Your task to perform on an android device: Go to Yahoo.com Image 0: 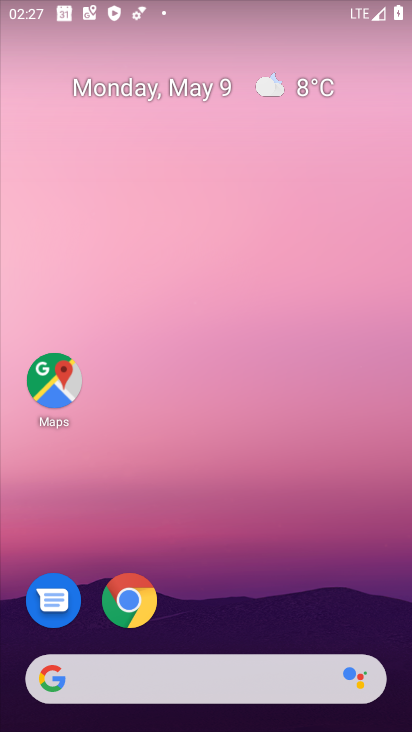
Step 0: click (122, 595)
Your task to perform on an android device: Go to Yahoo.com Image 1: 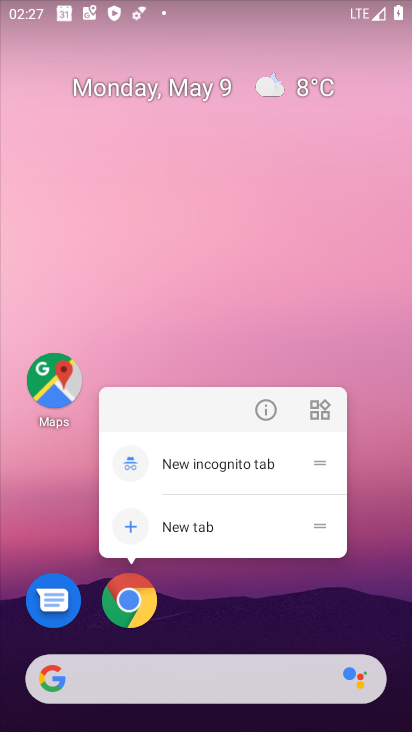
Step 1: click (128, 593)
Your task to perform on an android device: Go to Yahoo.com Image 2: 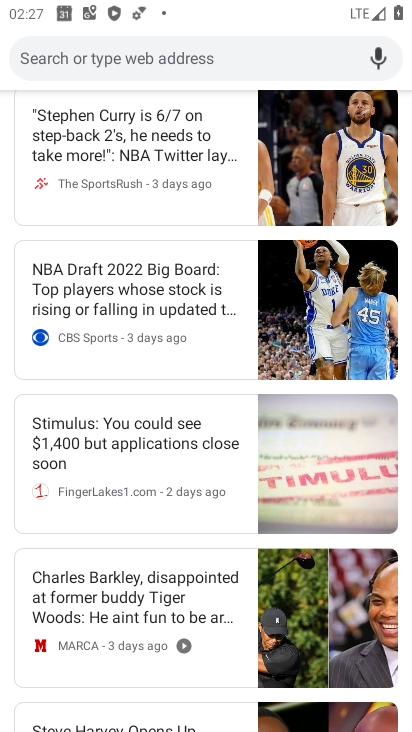
Step 2: drag from (178, 239) to (182, 609)
Your task to perform on an android device: Go to Yahoo.com Image 3: 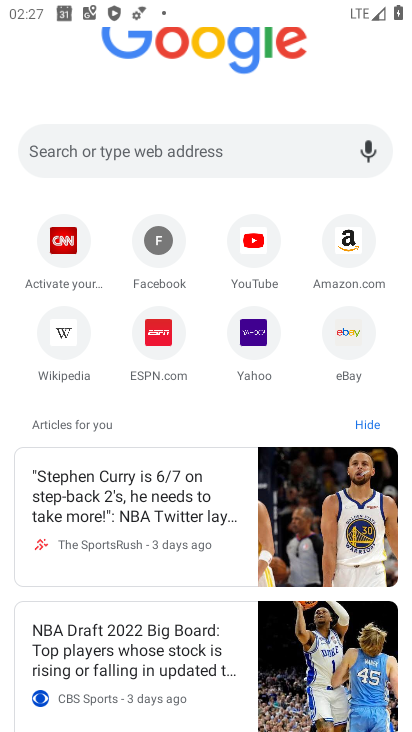
Step 3: click (250, 336)
Your task to perform on an android device: Go to Yahoo.com Image 4: 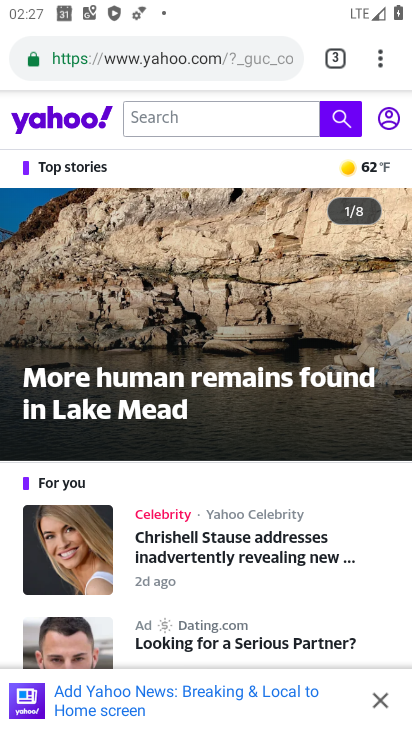
Step 4: task complete